Your task to perform on an android device: Open Android settings Image 0: 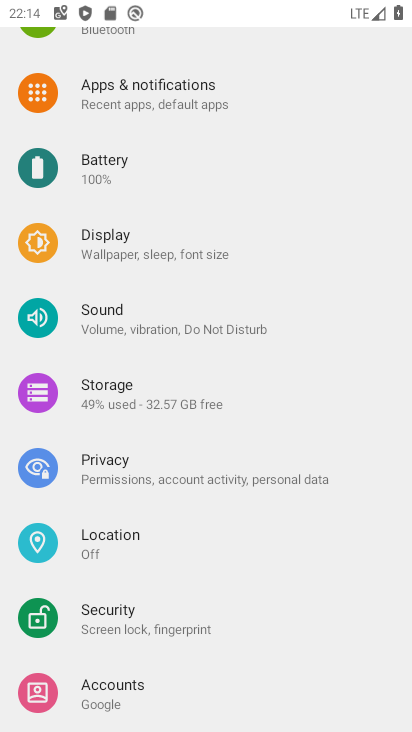
Step 0: task complete